Your task to perform on an android device: What's the weather going to be this weekend? Image 0: 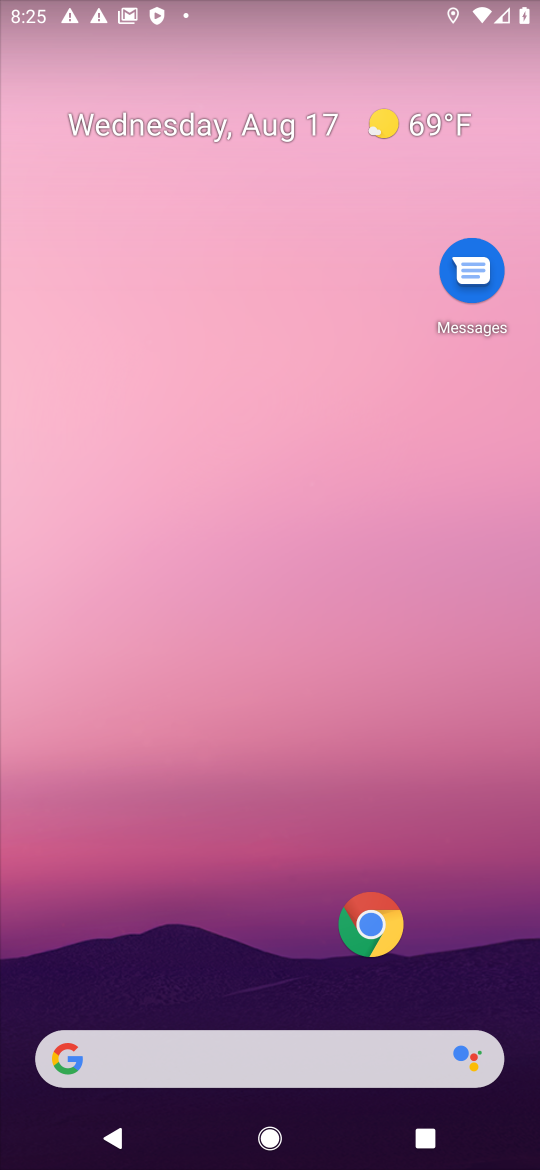
Step 0: drag from (197, 916) to (280, 20)
Your task to perform on an android device: What's the weather going to be this weekend? Image 1: 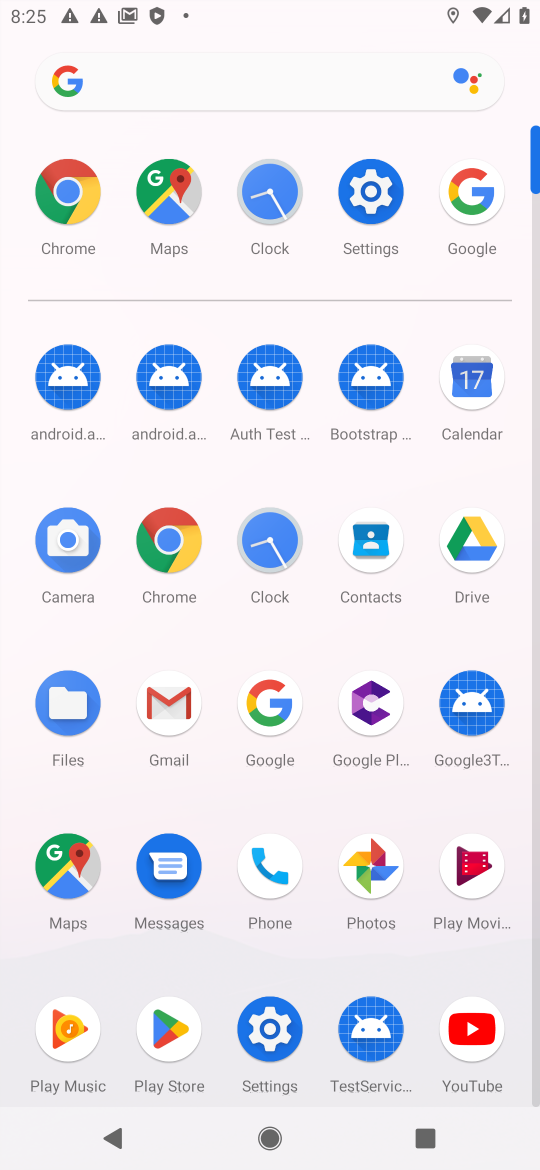
Step 1: click (156, 555)
Your task to perform on an android device: What's the weather going to be this weekend? Image 2: 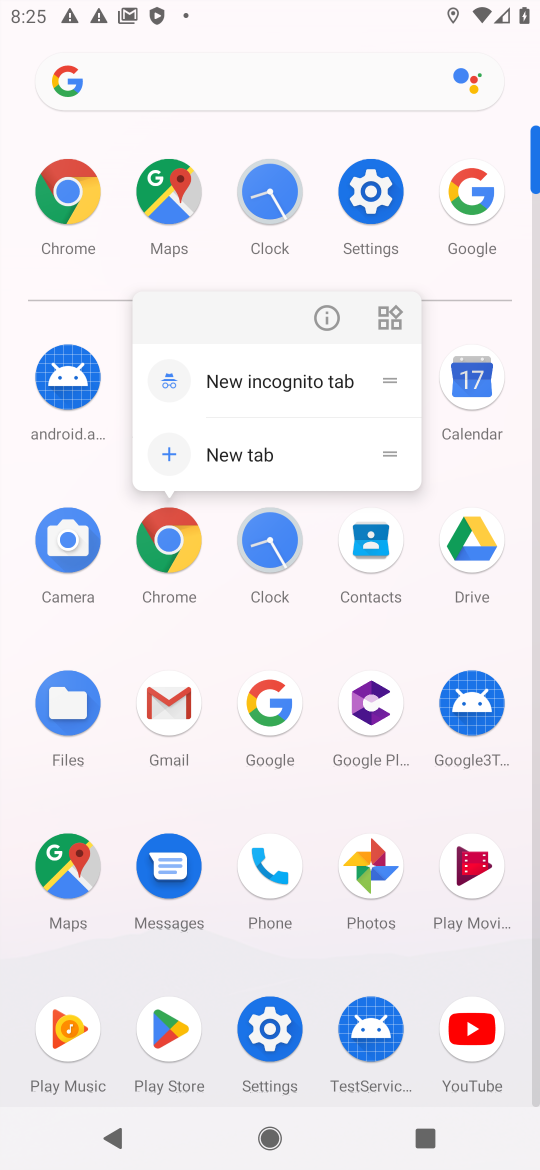
Step 2: click (168, 536)
Your task to perform on an android device: What's the weather going to be this weekend? Image 3: 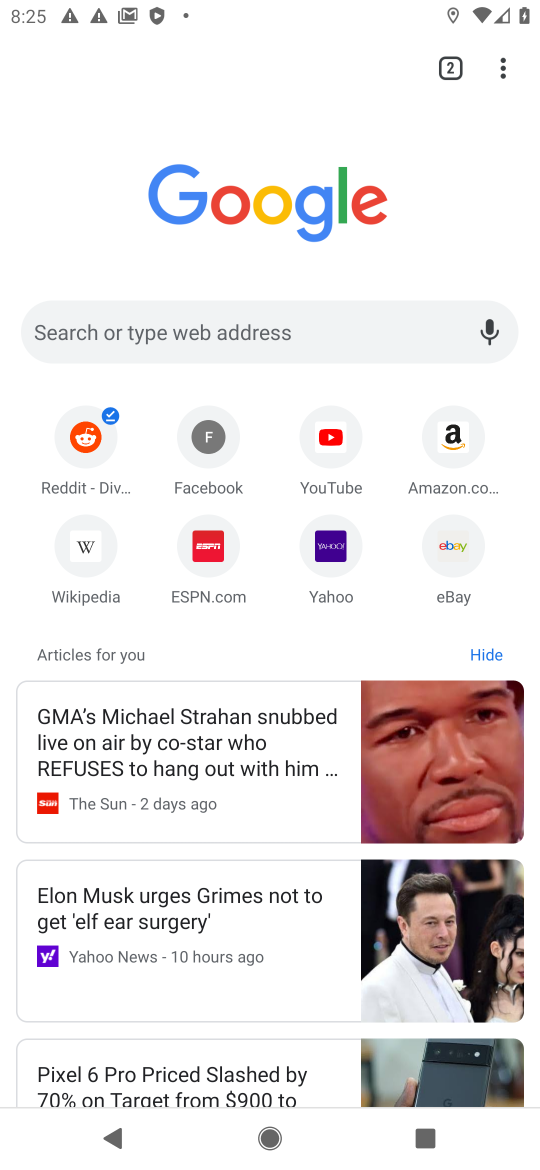
Step 3: click (202, 322)
Your task to perform on an android device: What's the weather going to be this weekend? Image 4: 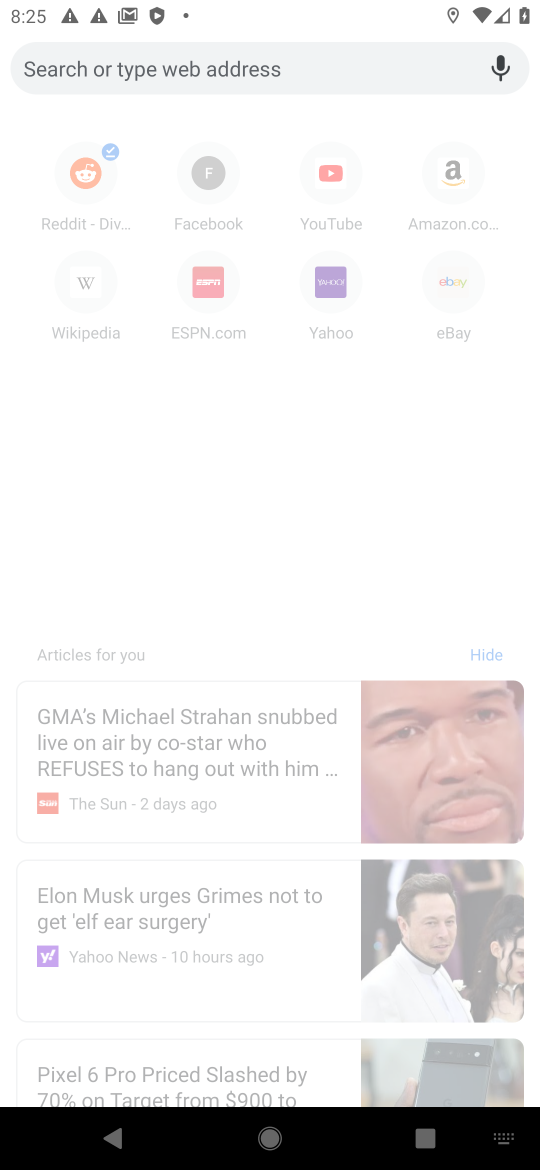
Step 4: type "What's the weather going to be this weekend?"
Your task to perform on an android device: What's the weather going to be this weekend? Image 5: 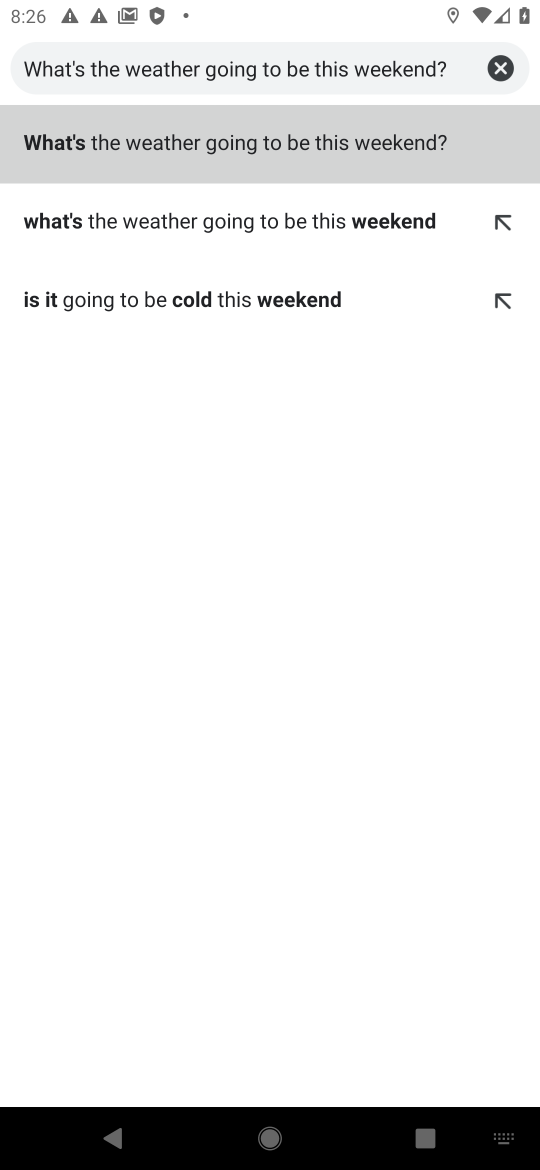
Step 5: click (143, 141)
Your task to perform on an android device: What's the weather going to be this weekend? Image 6: 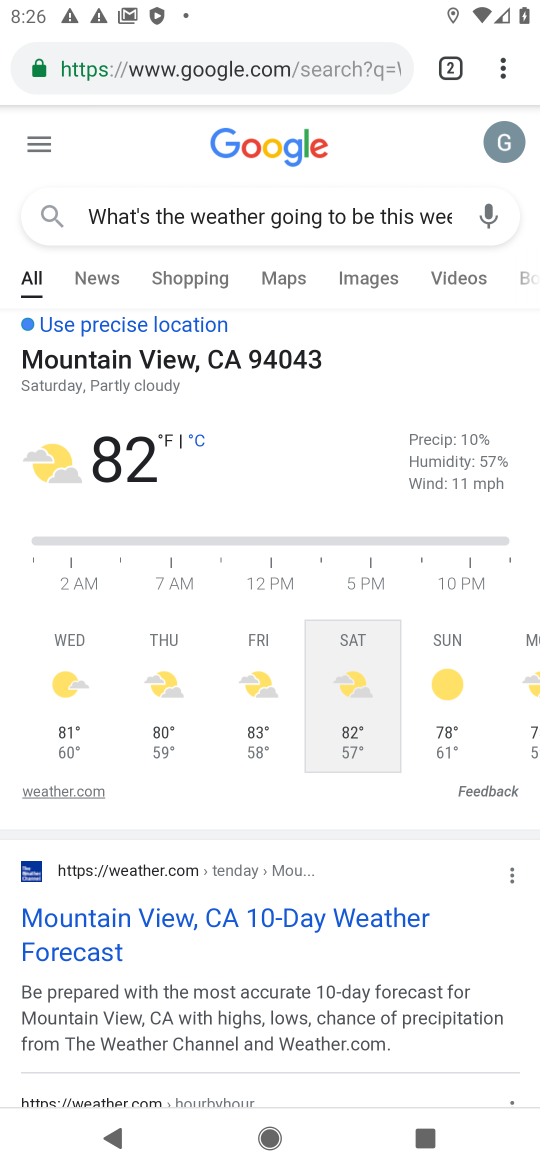
Step 6: task complete